Your task to perform on an android device: Open location settings Image 0: 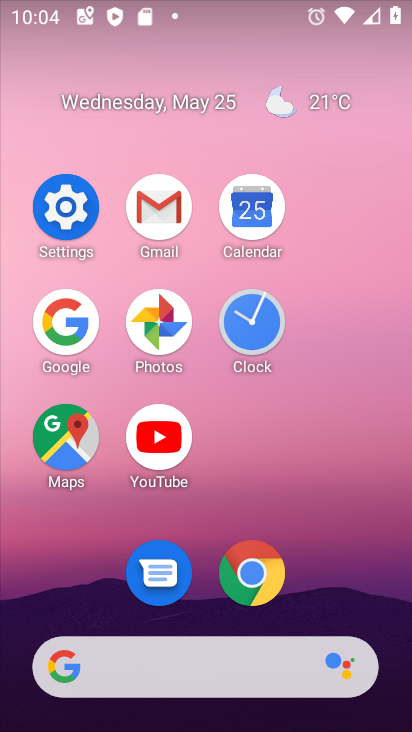
Step 0: click (62, 215)
Your task to perform on an android device: Open location settings Image 1: 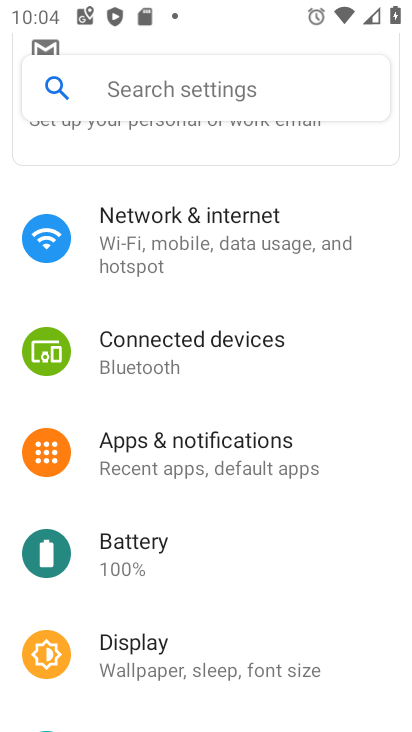
Step 1: drag from (263, 557) to (290, 220)
Your task to perform on an android device: Open location settings Image 2: 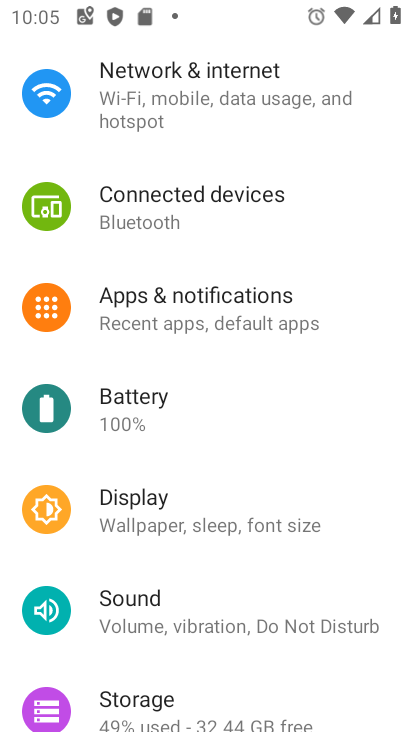
Step 2: drag from (231, 624) to (261, 221)
Your task to perform on an android device: Open location settings Image 3: 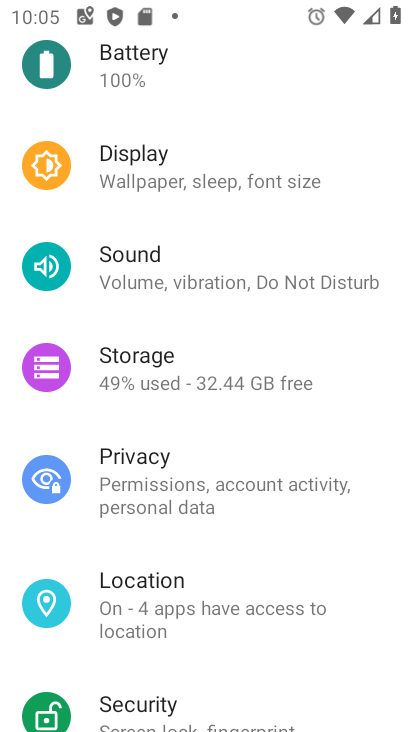
Step 3: click (206, 584)
Your task to perform on an android device: Open location settings Image 4: 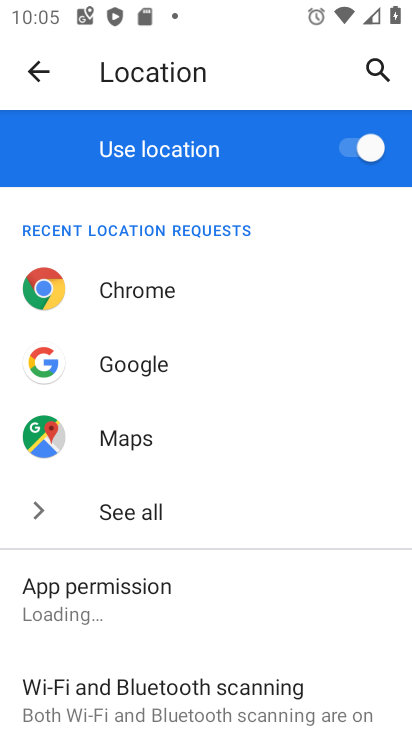
Step 4: task complete